Your task to perform on an android device: Open network settings Image 0: 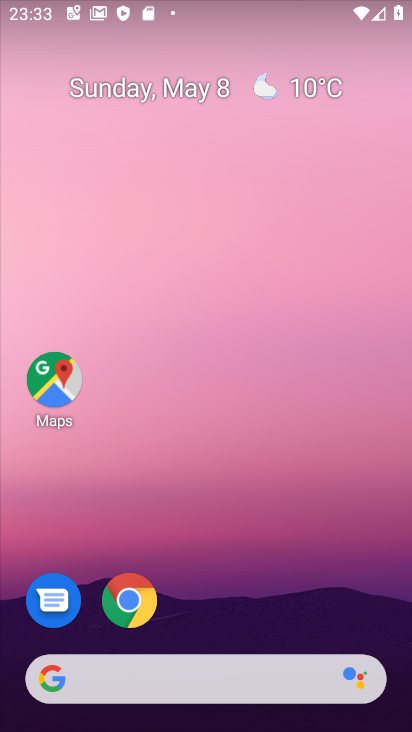
Step 0: drag from (178, 632) to (185, 279)
Your task to perform on an android device: Open network settings Image 1: 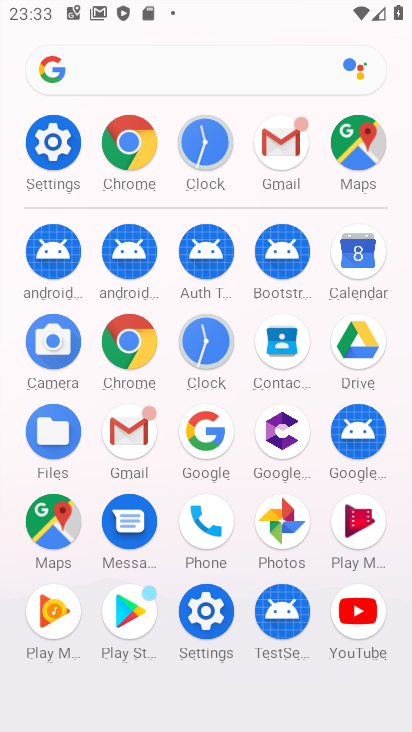
Step 1: click (42, 138)
Your task to perform on an android device: Open network settings Image 2: 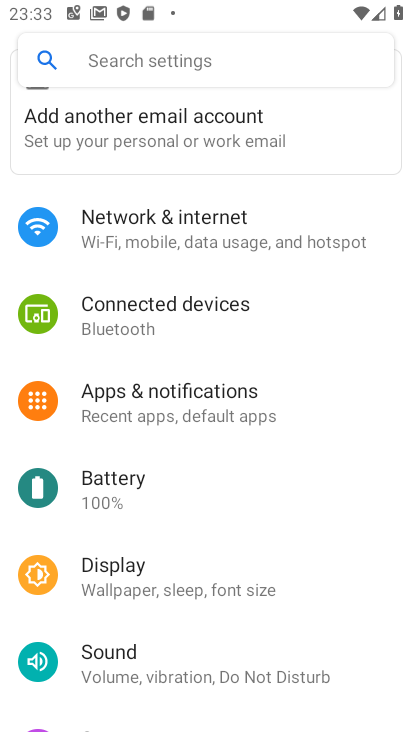
Step 2: click (187, 231)
Your task to perform on an android device: Open network settings Image 3: 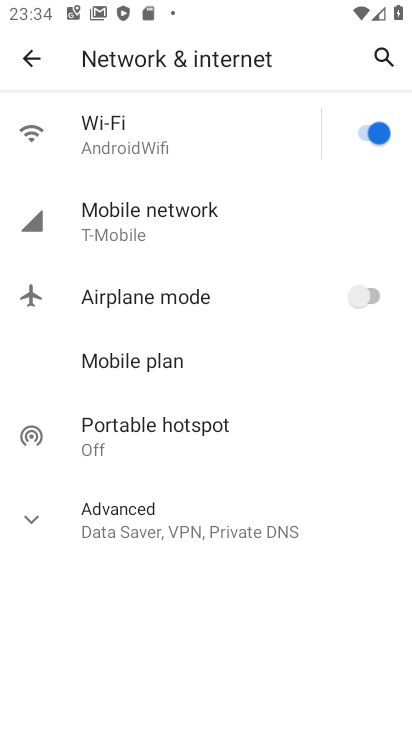
Step 3: click (187, 231)
Your task to perform on an android device: Open network settings Image 4: 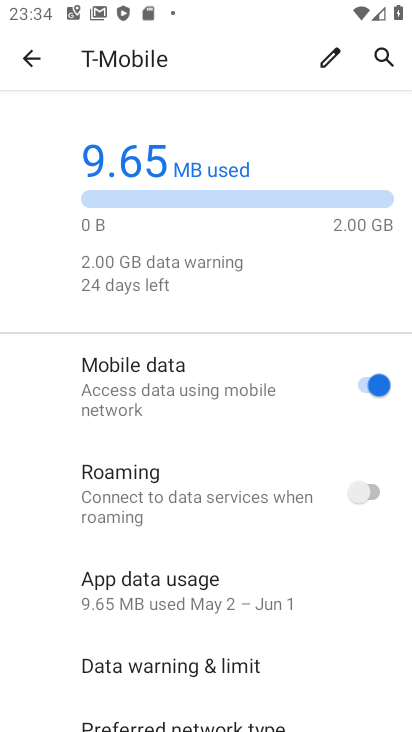
Step 4: task complete